Your task to perform on an android device: toggle location history Image 0: 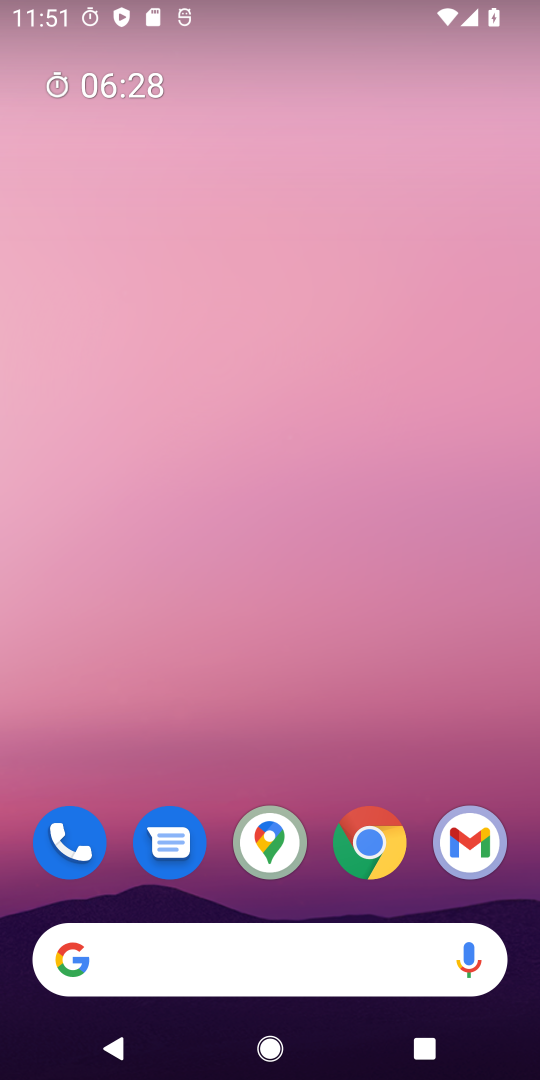
Step 0: drag from (324, 900) to (301, 189)
Your task to perform on an android device: toggle location history Image 1: 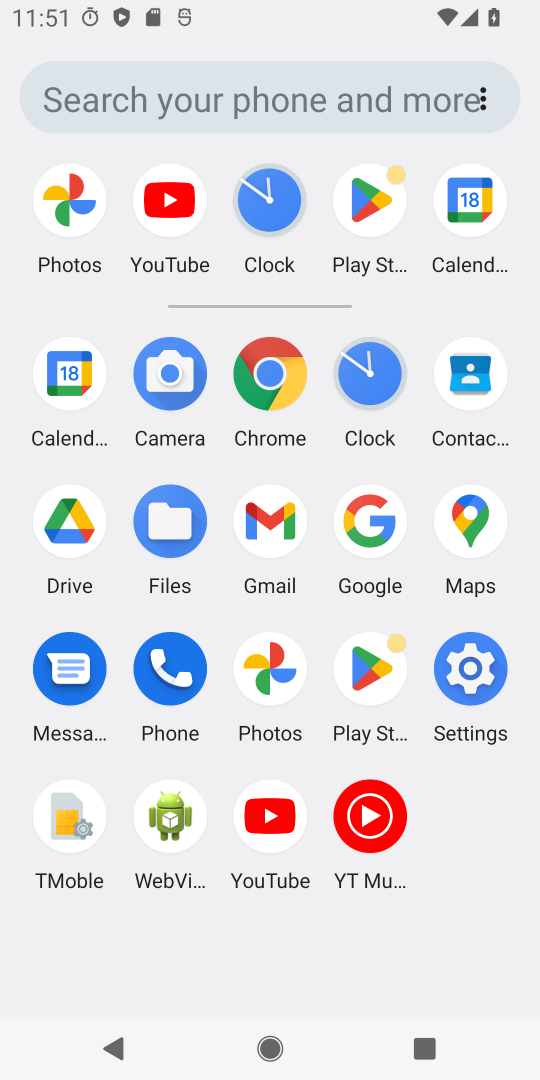
Step 1: click (486, 654)
Your task to perform on an android device: toggle location history Image 2: 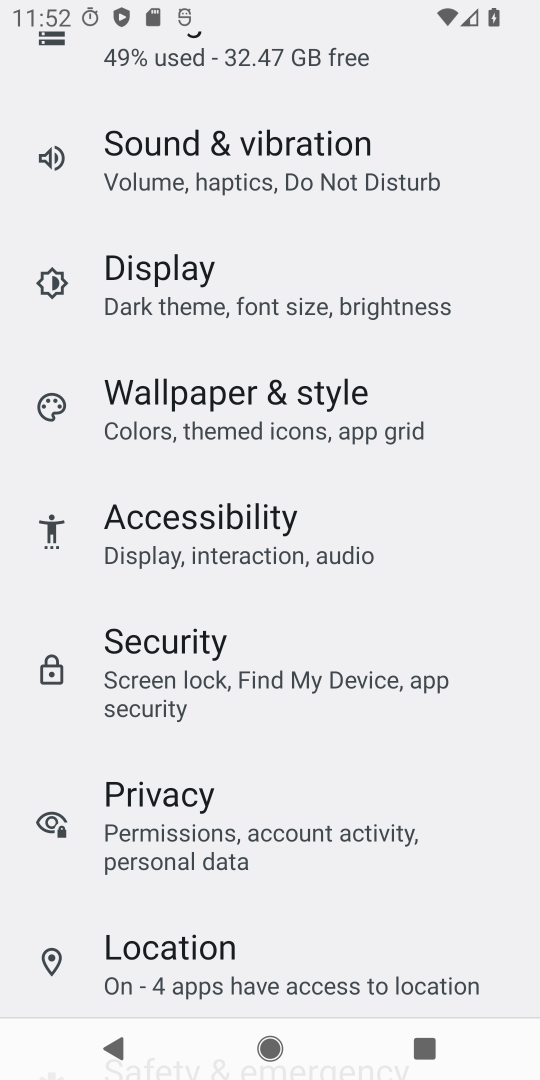
Step 2: click (245, 943)
Your task to perform on an android device: toggle location history Image 3: 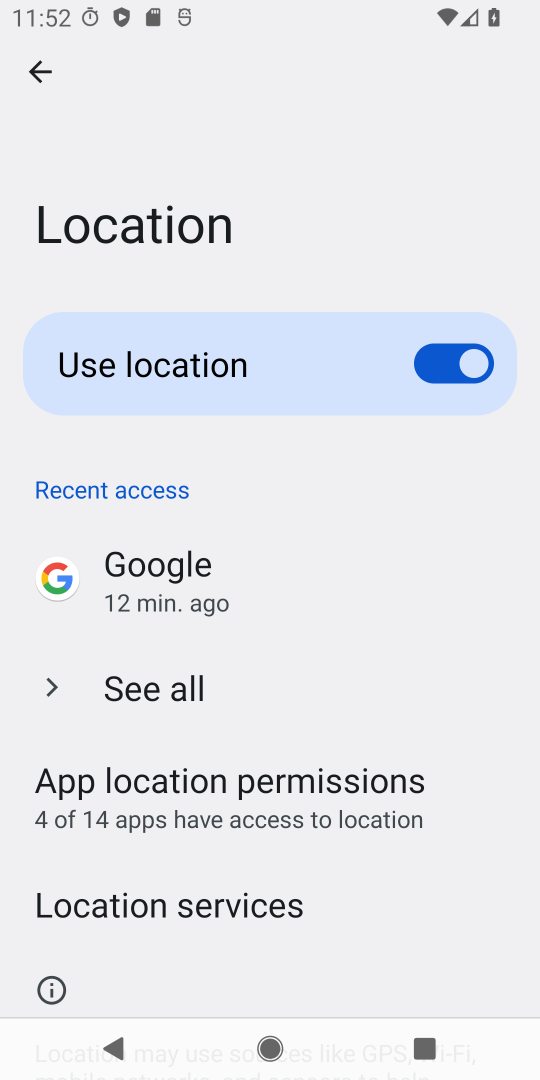
Step 3: drag from (210, 944) to (272, 112)
Your task to perform on an android device: toggle location history Image 4: 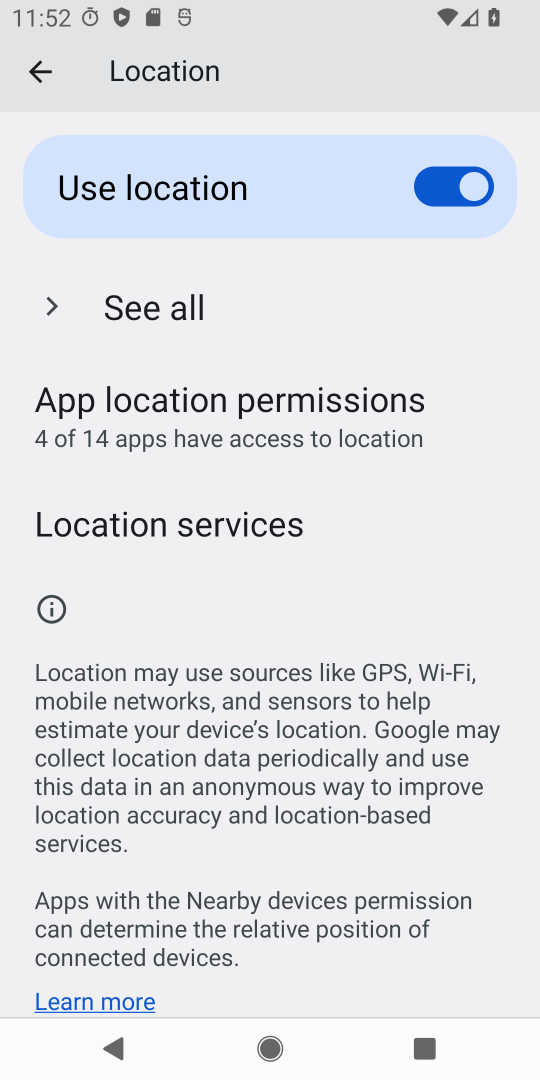
Step 4: drag from (370, 820) to (397, 87)
Your task to perform on an android device: toggle location history Image 5: 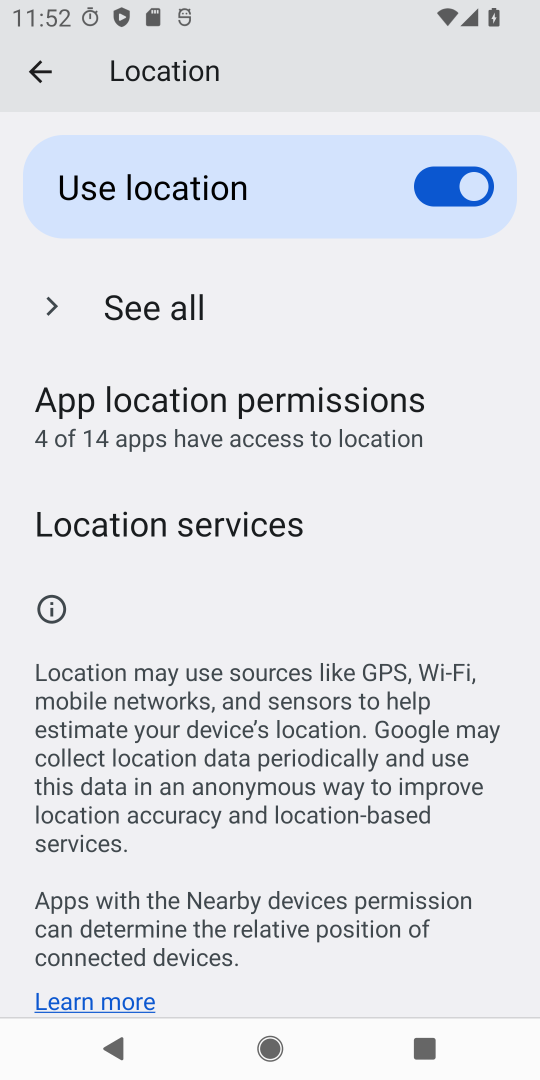
Step 5: click (216, 510)
Your task to perform on an android device: toggle location history Image 6: 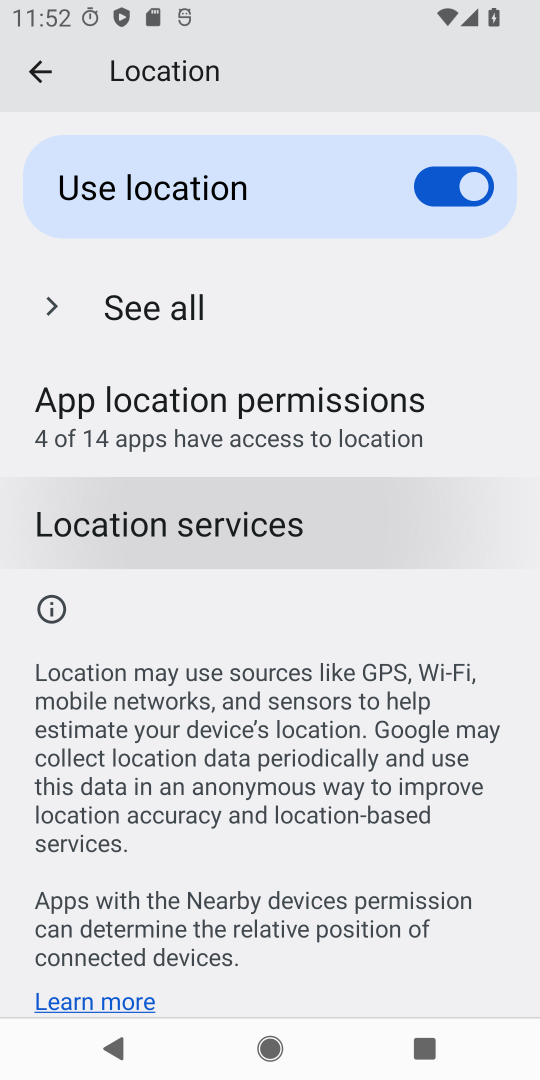
Step 6: click (216, 510)
Your task to perform on an android device: toggle location history Image 7: 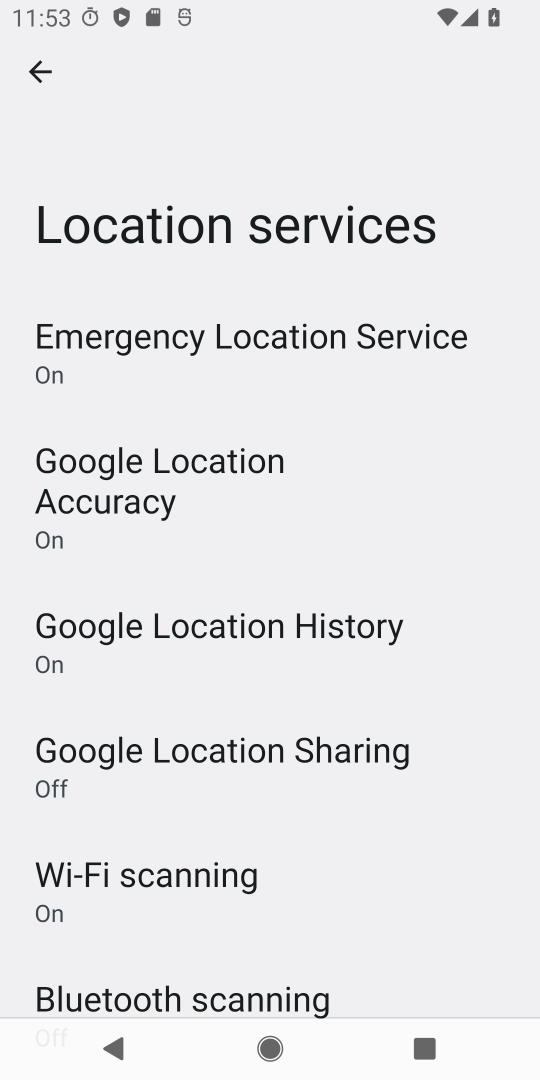
Step 7: click (398, 640)
Your task to perform on an android device: toggle location history Image 8: 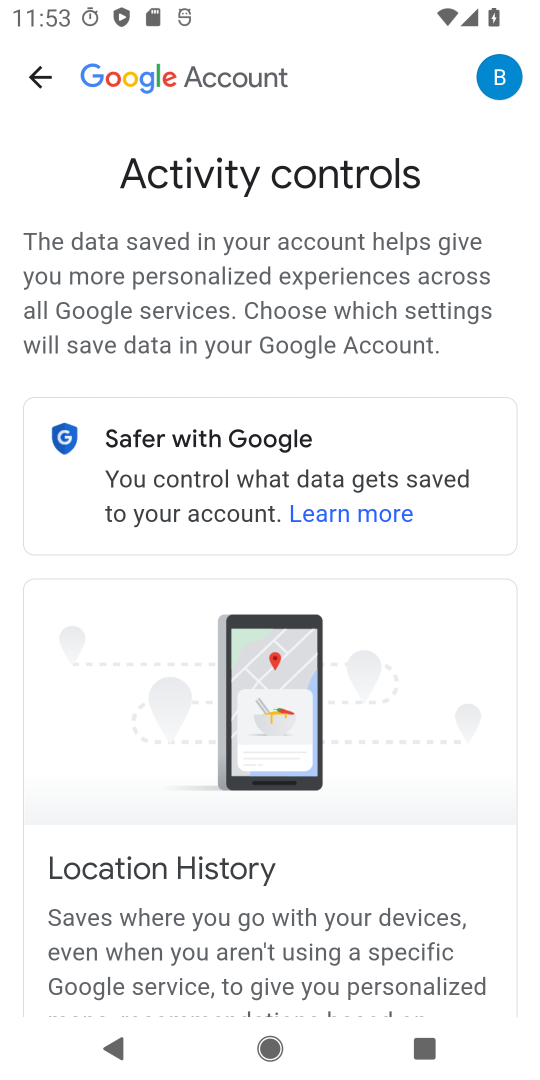
Step 8: drag from (451, 925) to (386, 174)
Your task to perform on an android device: toggle location history Image 9: 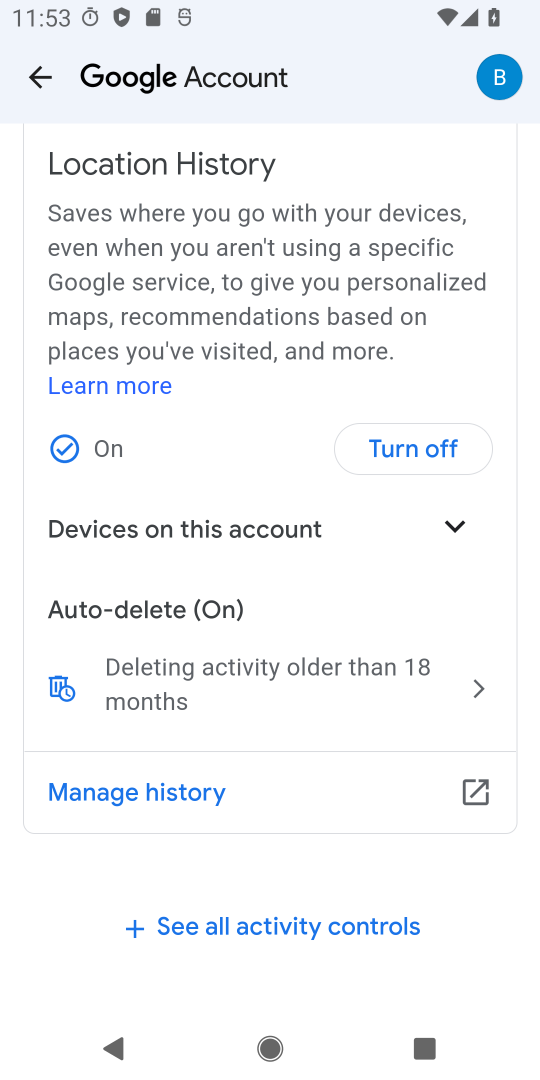
Step 9: click (421, 438)
Your task to perform on an android device: toggle location history Image 10: 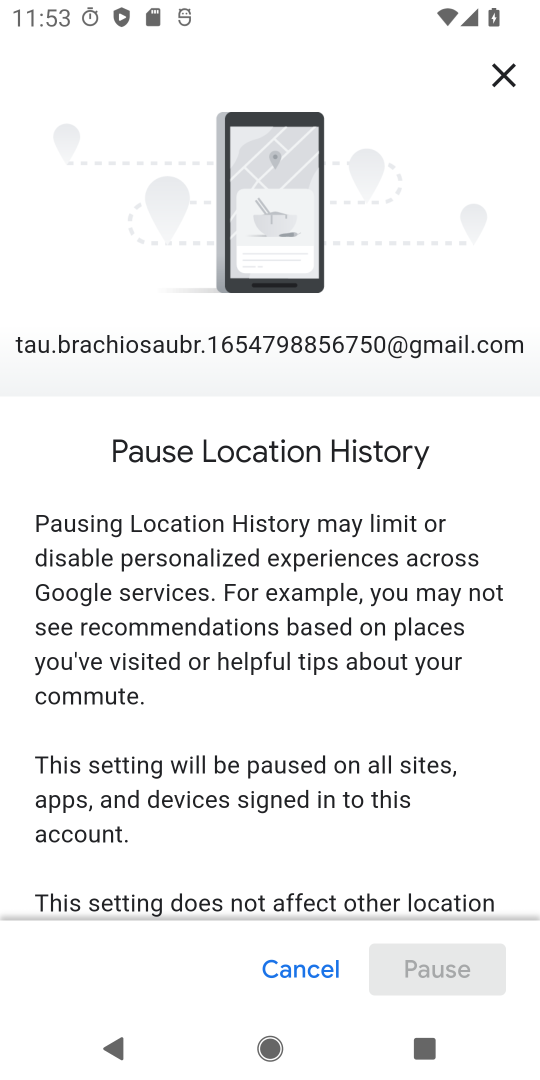
Step 10: drag from (204, 871) to (325, 189)
Your task to perform on an android device: toggle location history Image 11: 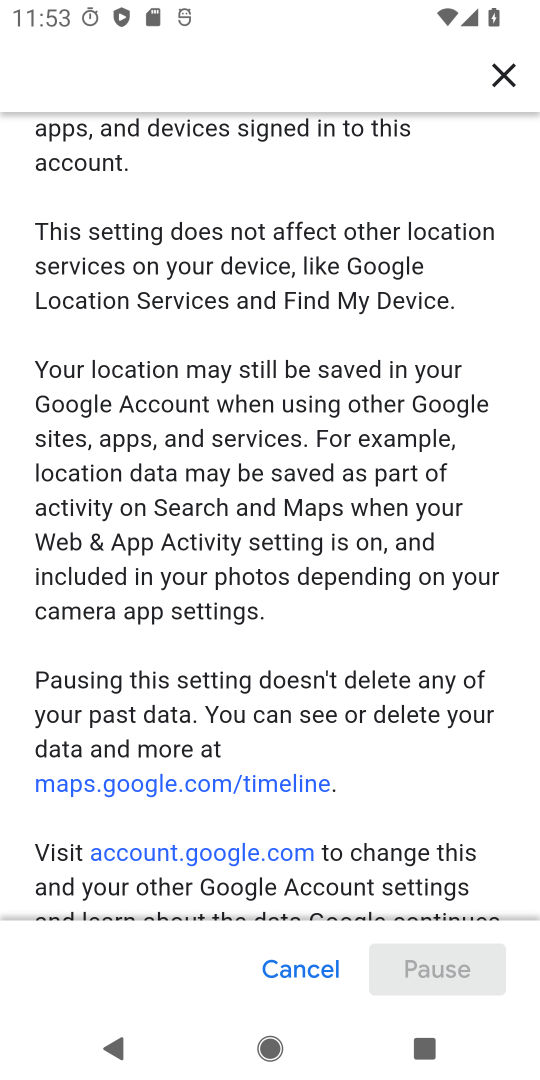
Step 11: drag from (342, 710) to (319, 58)
Your task to perform on an android device: toggle location history Image 12: 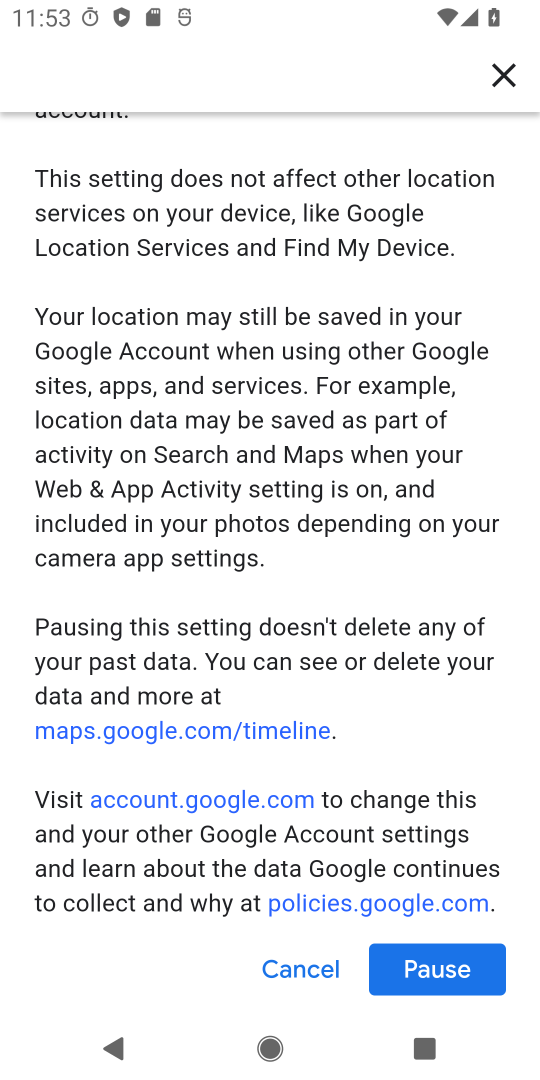
Step 12: click (404, 965)
Your task to perform on an android device: toggle location history Image 13: 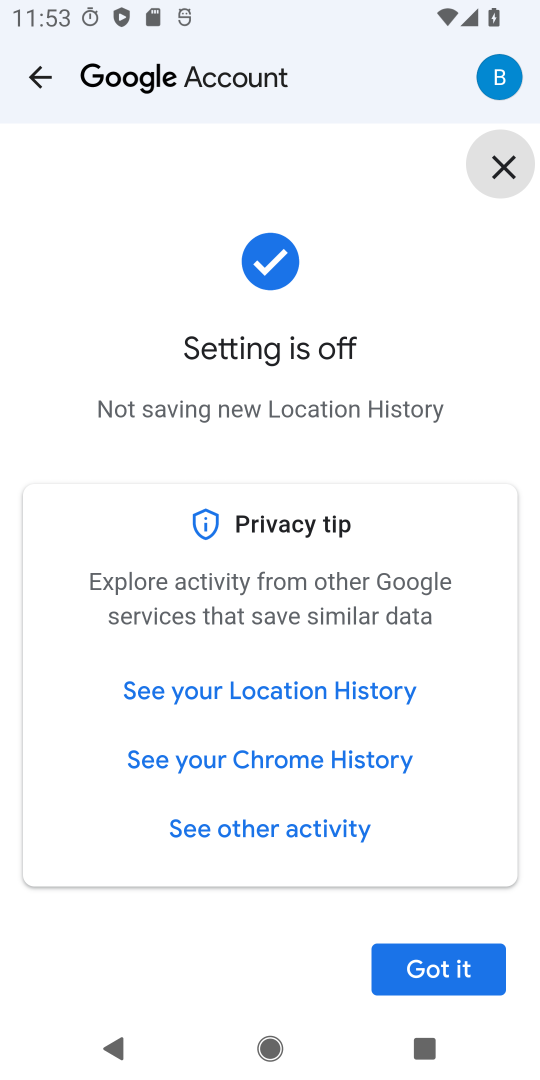
Step 13: click (424, 954)
Your task to perform on an android device: toggle location history Image 14: 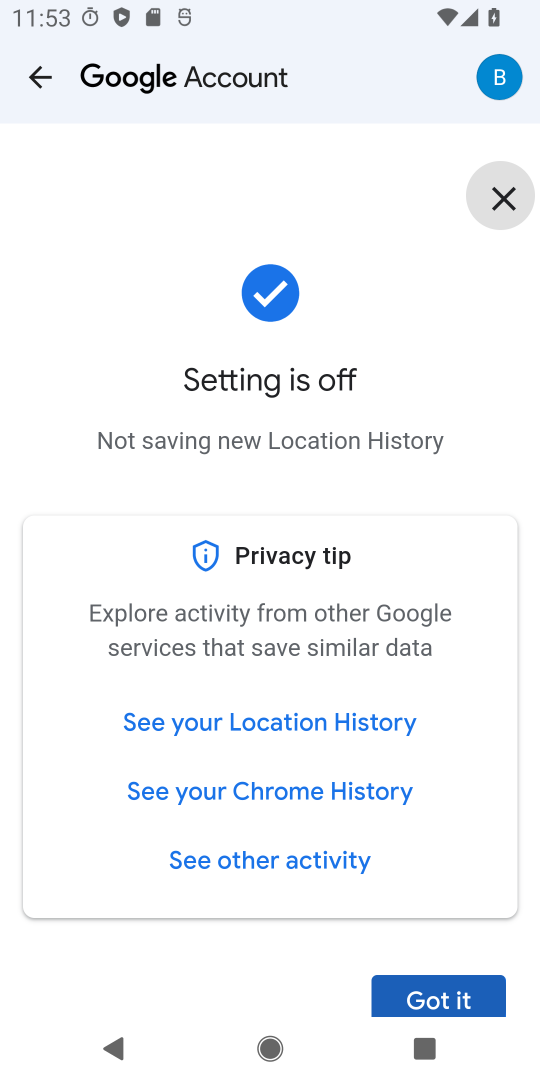
Step 14: task complete